Your task to perform on an android device: turn notification dots off Image 0: 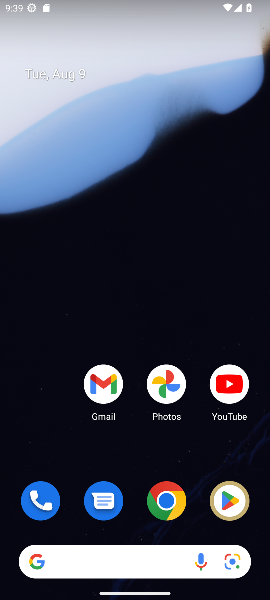
Step 0: drag from (119, 512) to (132, 228)
Your task to perform on an android device: turn notification dots off Image 1: 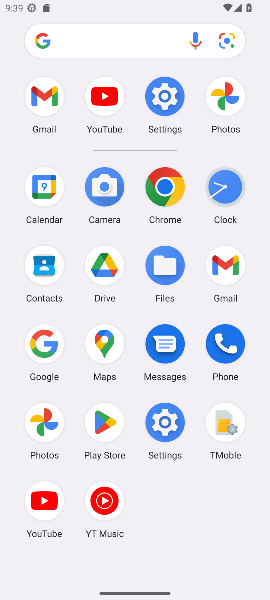
Step 1: click (169, 97)
Your task to perform on an android device: turn notification dots off Image 2: 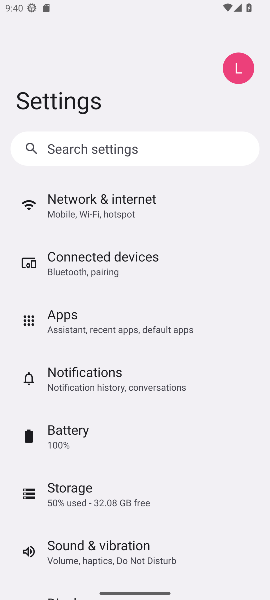
Step 2: click (95, 384)
Your task to perform on an android device: turn notification dots off Image 3: 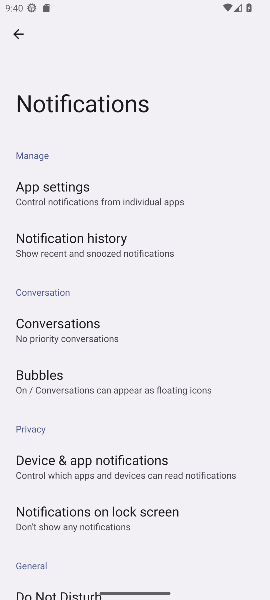
Step 3: drag from (175, 359) to (175, 254)
Your task to perform on an android device: turn notification dots off Image 4: 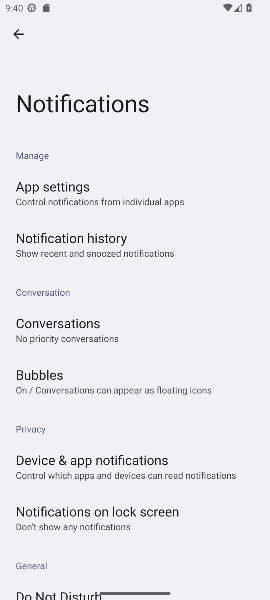
Step 4: drag from (157, 516) to (157, 270)
Your task to perform on an android device: turn notification dots off Image 5: 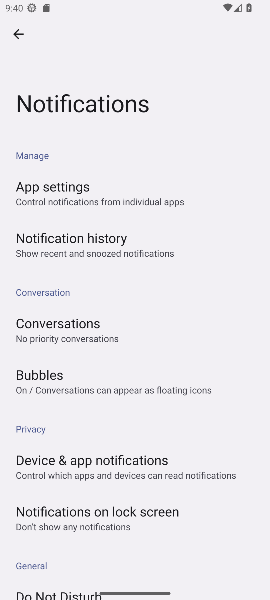
Step 5: drag from (135, 484) to (135, 292)
Your task to perform on an android device: turn notification dots off Image 6: 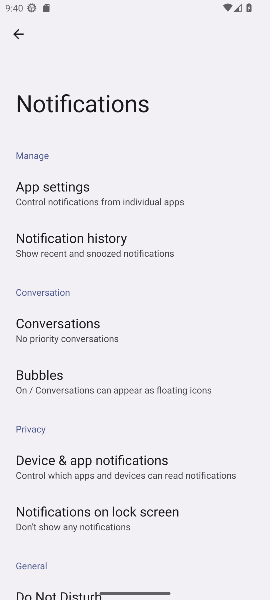
Step 6: drag from (93, 513) to (97, 238)
Your task to perform on an android device: turn notification dots off Image 7: 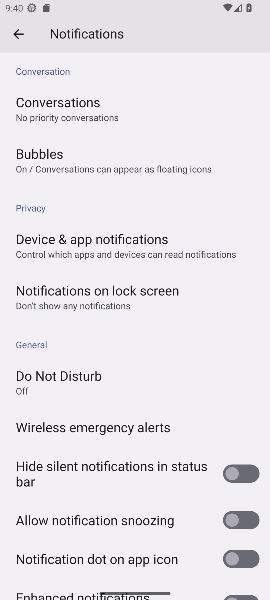
Step 7: drag from (123, 495) to (152, 204)
Your task to perform on an android device: turn notification dots off Image 8: 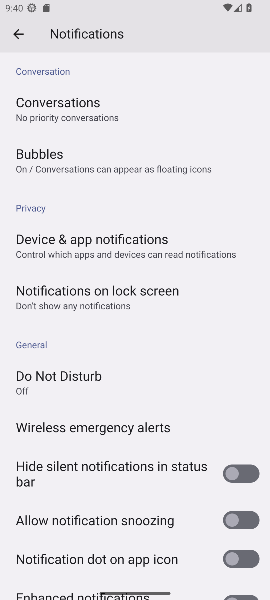
Step 8: click (257, 555)
Your task to perform on an android device: turn notification dots off Image 9: 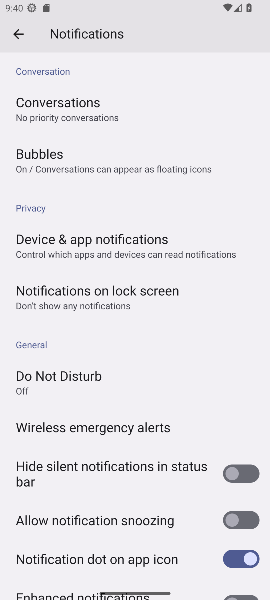
Step 9: task complete